Your task to perform on an android device: Open battery settings Image 0: 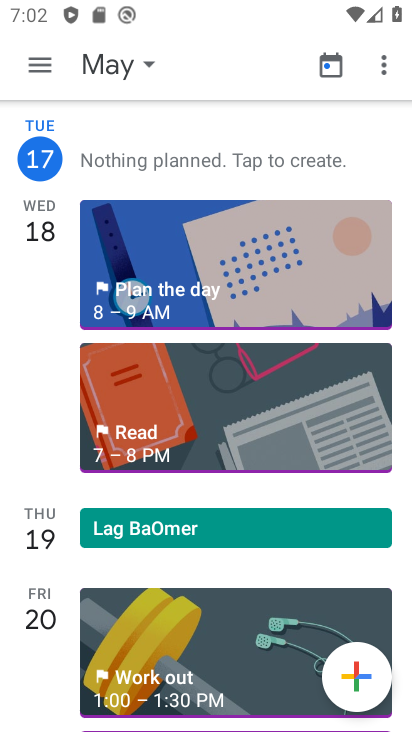
Step 0: press home button
Your task to perform on an android device: Open battery settings Image 1: 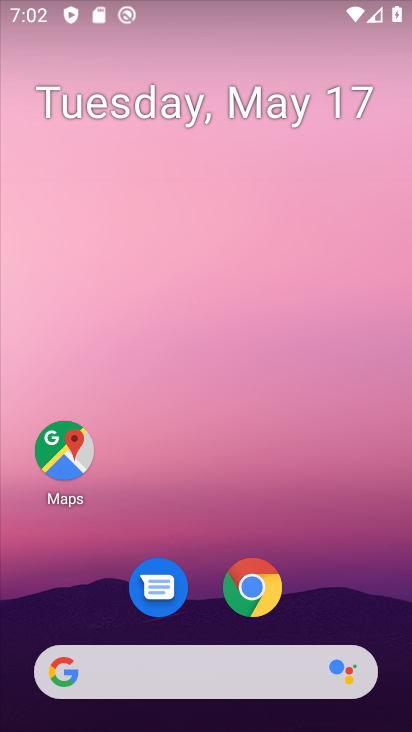
Step 1: drag from (228, 677) to (206, 248)
Your task to perform on an android device: Open battery settings Image 2: 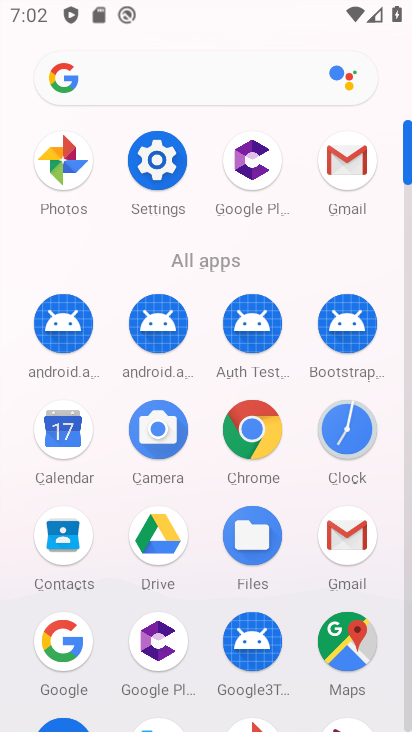
Step 2: click (162, 166)
Your task to perform on an android device: Open battery settings Image 3: 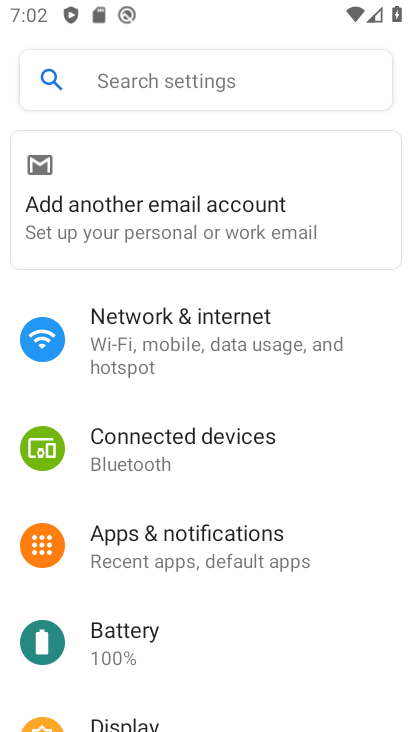
Step 3: click (120, 613)
Your task to perform on an android device: Open battery settings Image 4: 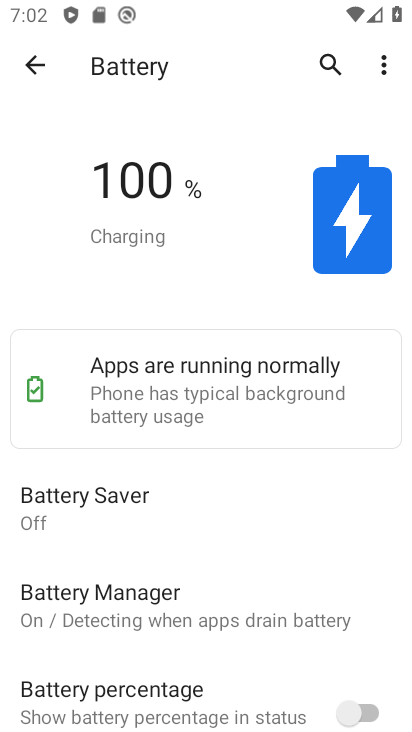
Step 4: task complete